Your task to perform on an android device: Open sound settings Image 0: 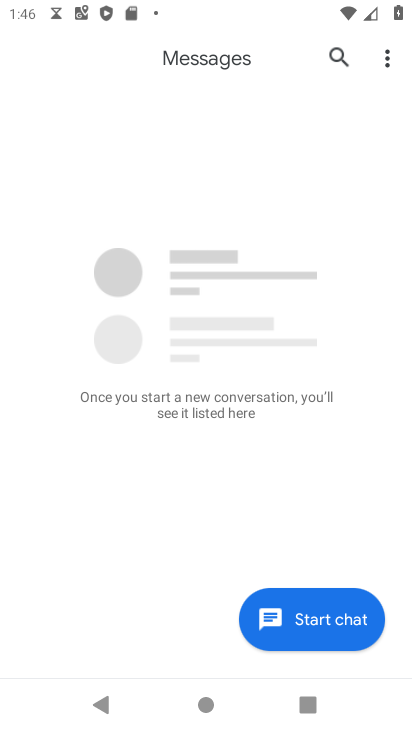
Step 0: press home button
Your task to perform on an android device: Open sound settings Image 1: 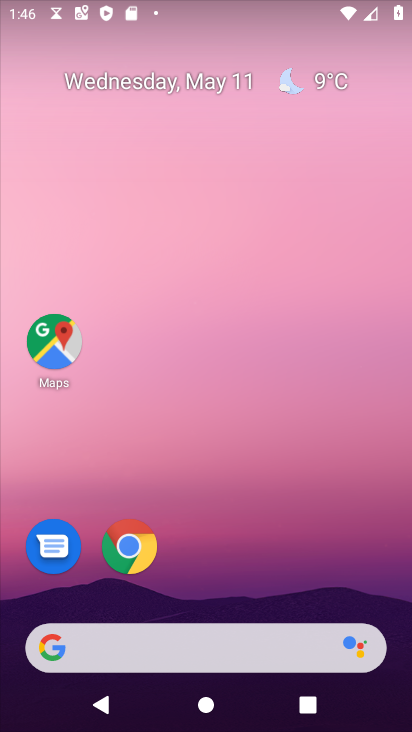
Step 1: drag from (261, 608) to (275, 33)
Your task to perform on an android device: Open sound settings Image 2: 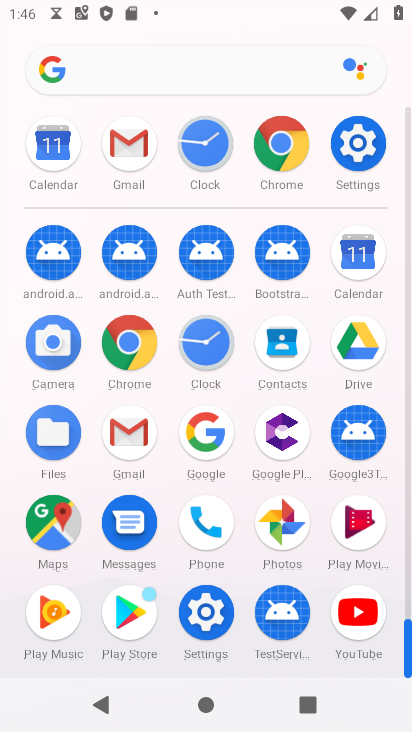
Step 2: click (218, 608)
Your task to perform on an android device: Open sound settings Image 3: 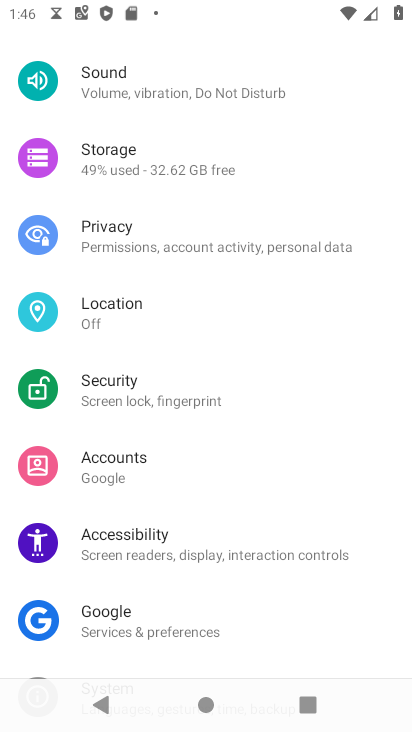
Step 3: drag from (198, 292) to (179, 364)
Your task to perform on an android device: Open sound settings Image 4: 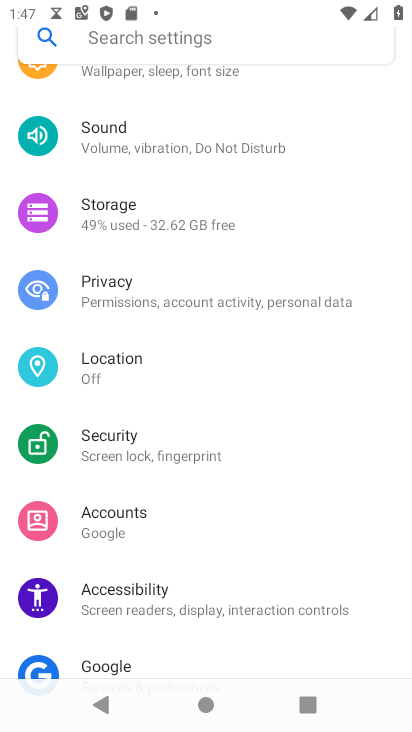
Step 4: click (141, 152)
Your task to perform on an android device: Open sound settings Image 5: 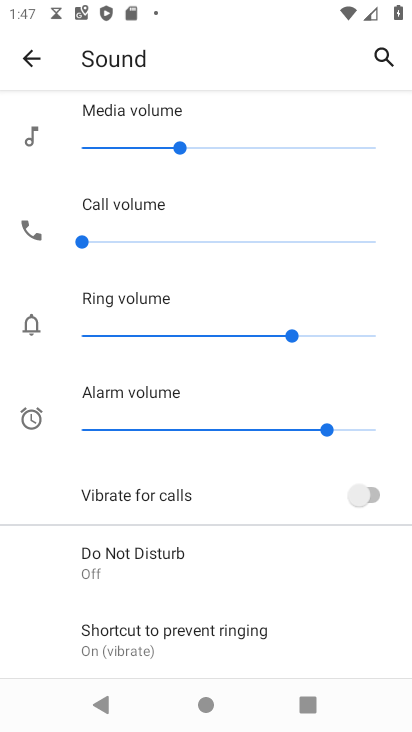
Step 5: task complete